Your task to perform on an android device: Open battery settings Image 0: 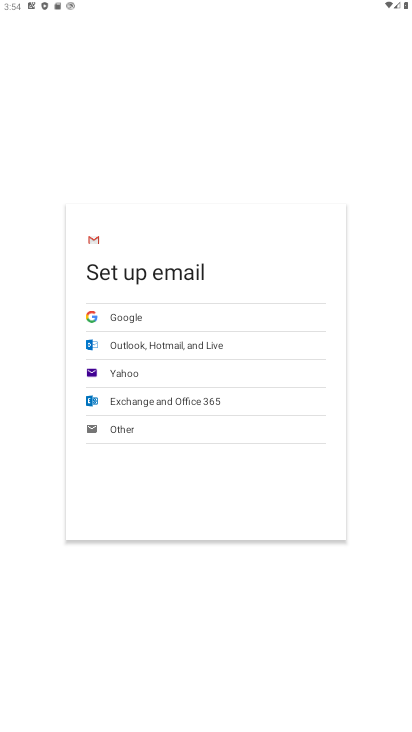
Step 0: press home button
Your task to perform on an android device: Open battery settings Image 1: 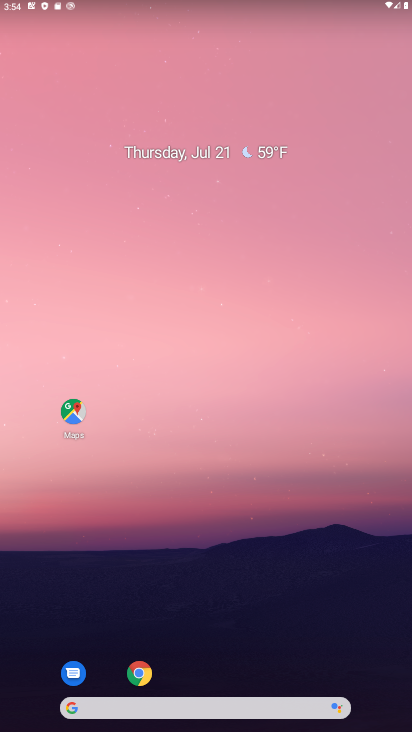
Step 1: drag from (377, 685) to (312, 104)
Your task to perform on an android device: Open battery settings Image 2: 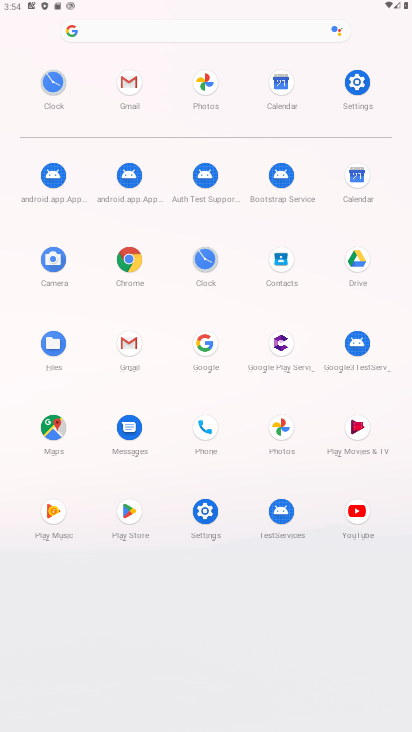
Step 2: click (204, 511)
Your task to perform on an android device: Open battery settings Image 3: 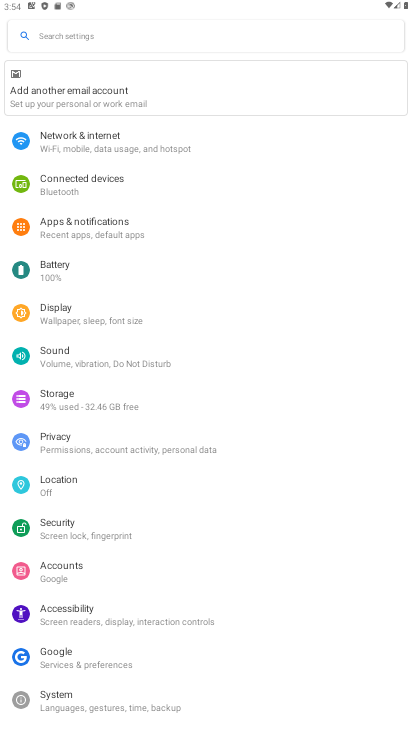
Step 3: click (48, 266)
Your task to perform on an android device: Open battery settings Image 4: 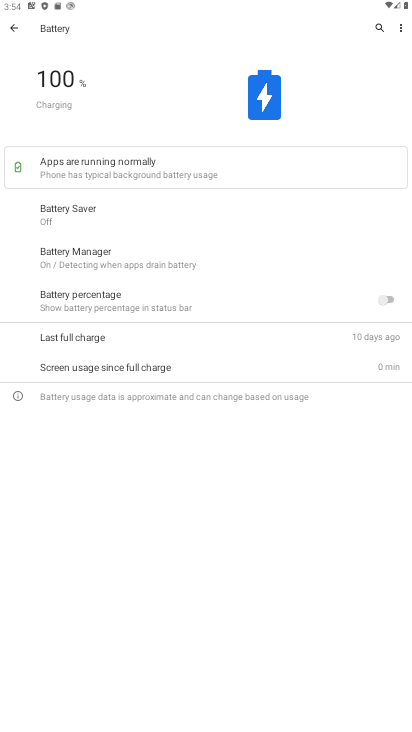
Step 4: task complete